Your task to perform on an android device: open wifi settings Image 0: 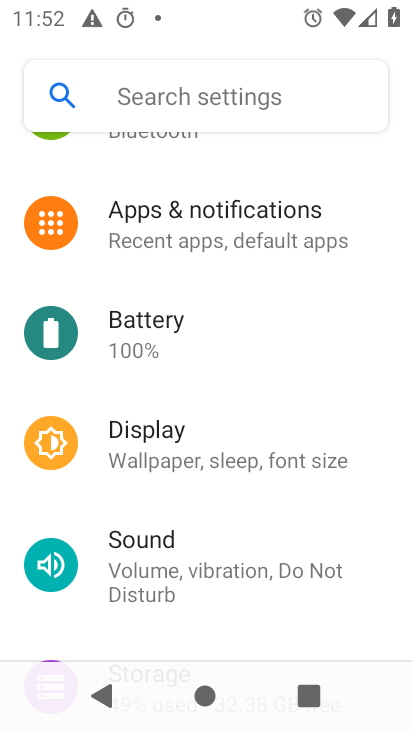
Step 0: drag from (217, 12) to (219, 489)
Your task to perform on an android device: open wifi settings Image 1: 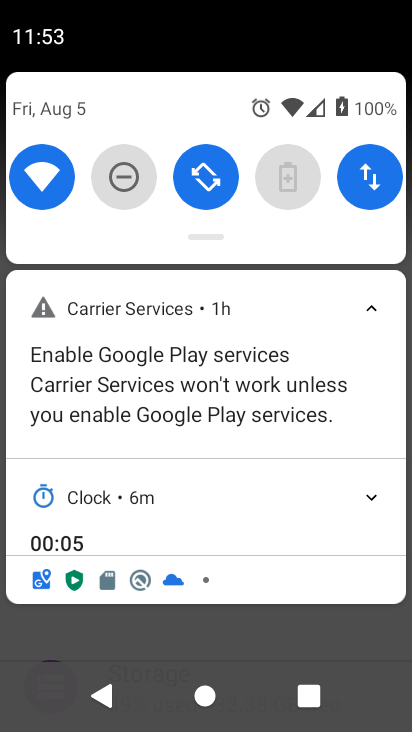
Step 1: click (44, 180)
Your task to perform on an android device: open wifi settings Image 2: 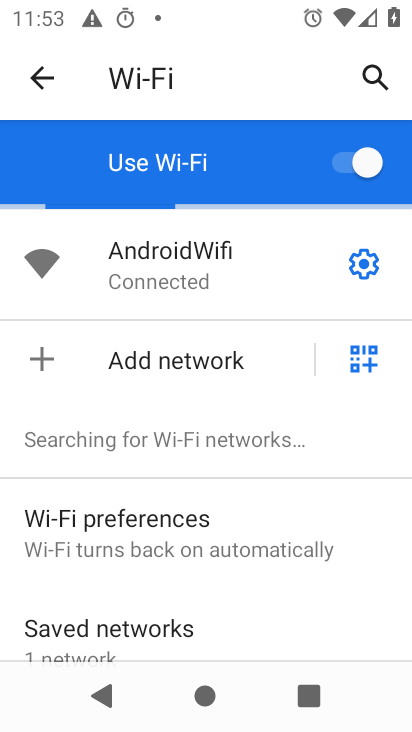
Step 2: task complete